Your task to perform on an android device: Go to Yahoo.com Image 0: 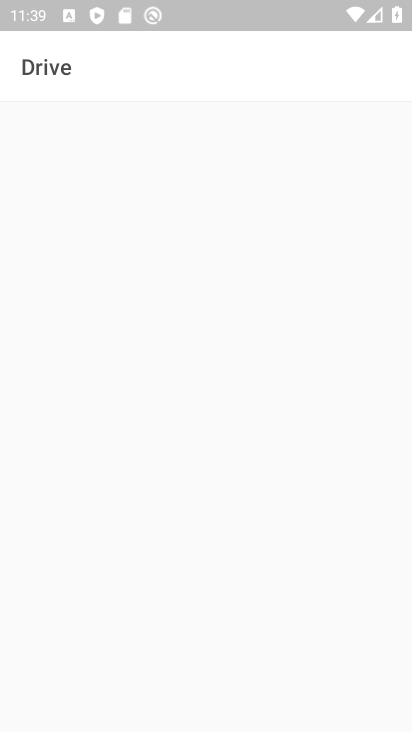
Step 0: press home button
Your task to perform on an android device: Go to Yahoo.com Image 1: 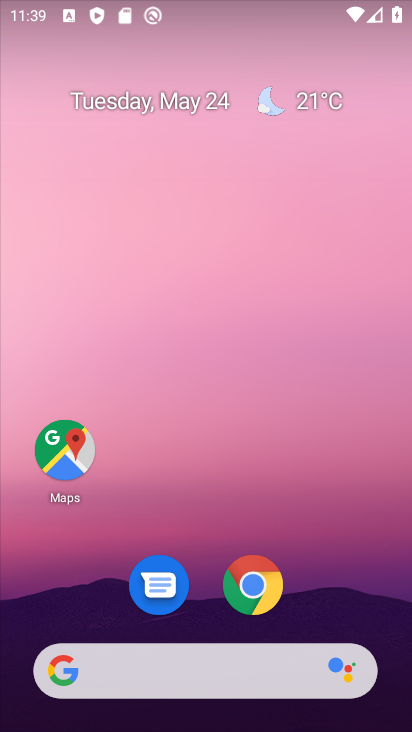
Step 1: click (267, 682)
Your task to perform on an android device: Go to Yahoo.com Image 2: 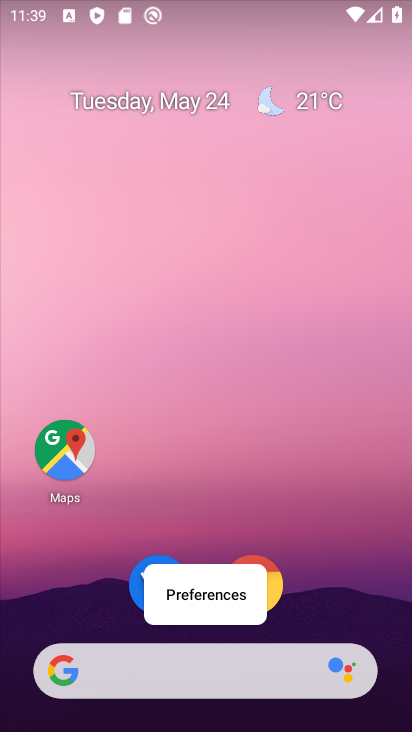
Step 2: click (211, 674)
Your task to perform on an android device: Go to Yahoo.com Image 3: 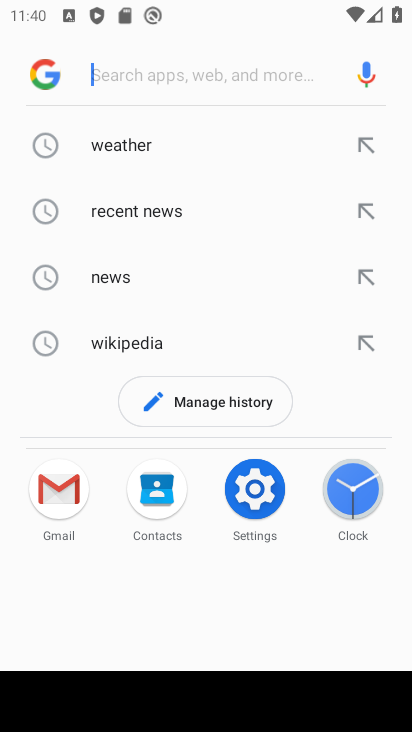
Step 3: type "yahoo.com"
Your task to perform on an android device: Go to Yahoo.com Image 4: 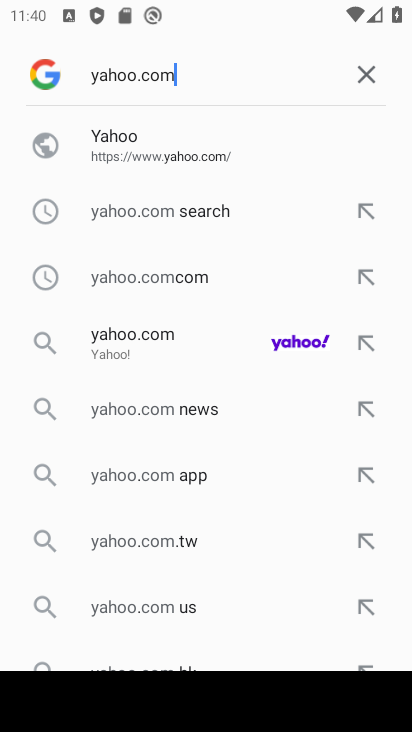
Step 4: click (149, 350)
Your task to perform on an android device: Go to Yahoo.com Image 5: 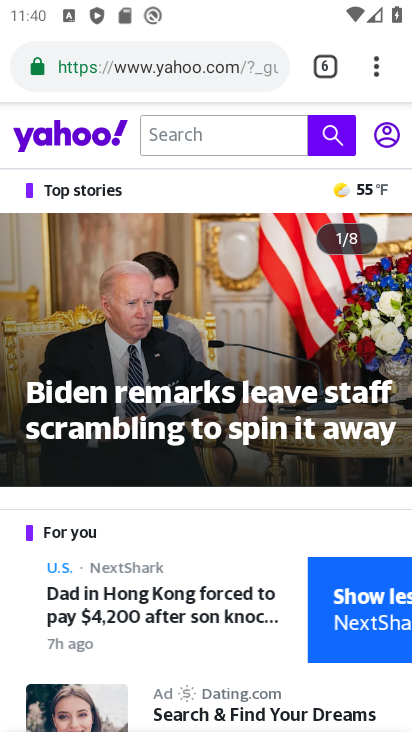
Step 5: task complete